Your task to perform on an android device: allow notifications from all sites in the chrome app Image 0: 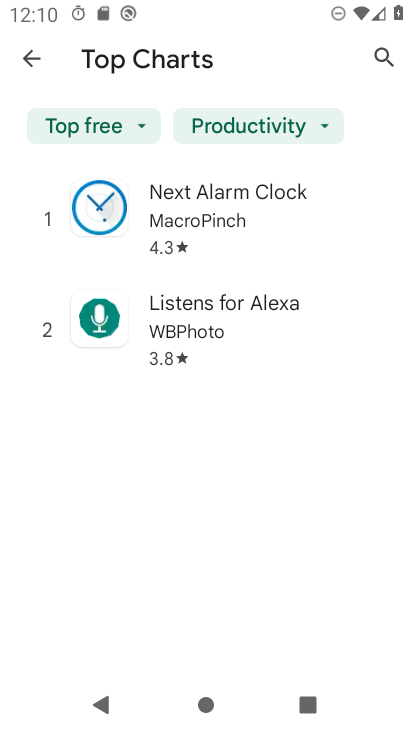
Step 0: press home button
Your task to perform on an android device: allow notifications from all sites in the chrome app Image 1: 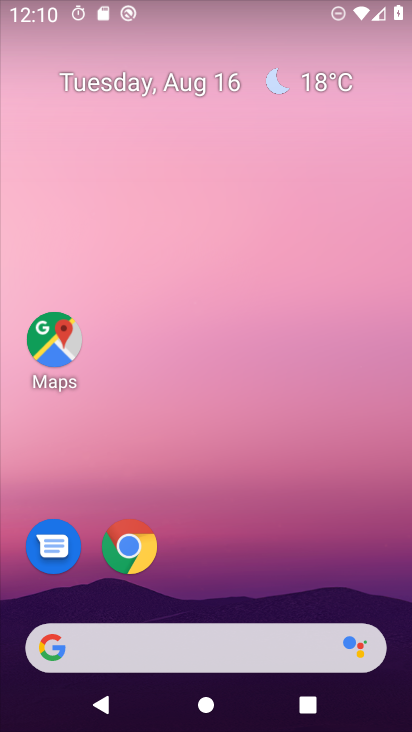
Step 1: drag from (248, 613) to (250, 90)
Your task to perform on an android device: allow notifications from all sites in the chrome app Image 2: 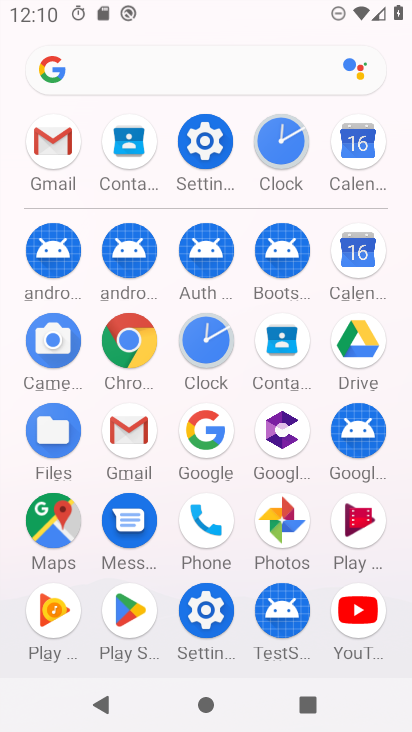
Step 2: click (131, 338)
Your task to perform on an android device: allow notifications from all sites in the chrome app Image 3: 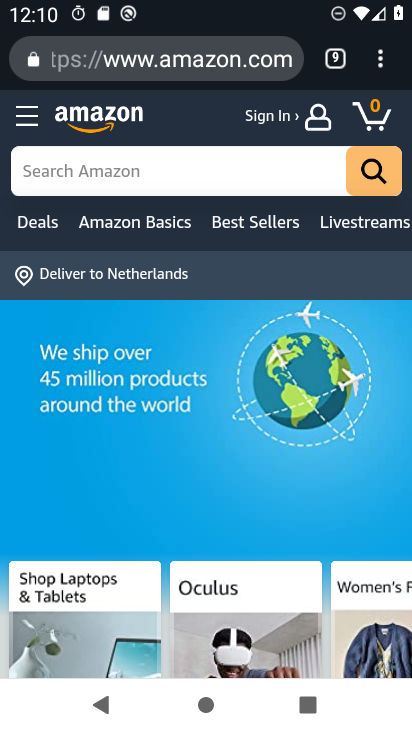
Step 3: drag from (381, 62) to (302, 570)
Your task to perform on an android device: allow notifications from all sites in the chrome app Image 4: 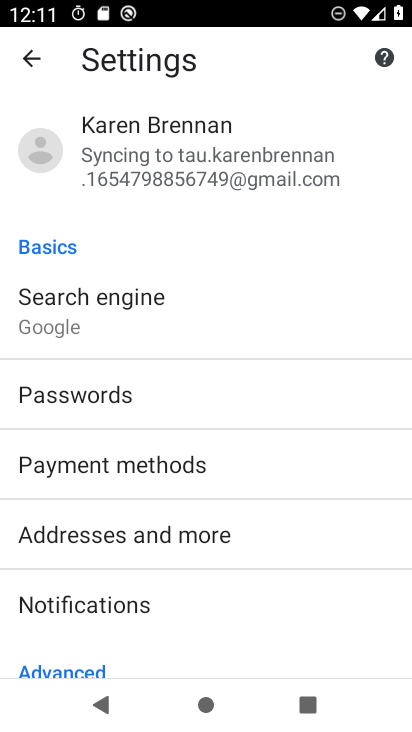
Step 4: drag from (168, 631) to (148, 153)
Your task to perform on an android device: allow notifications from all sites in the chrome app Image 5: 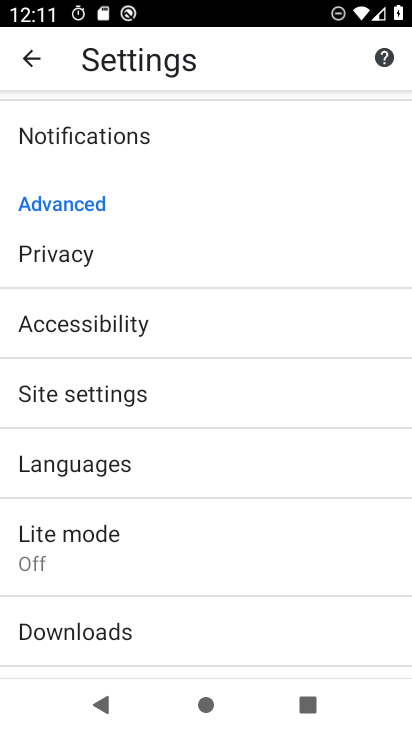
Step 5: drag from (108, 602) to (97, 359)
Your task to perform on an android device: allow notifications from all sites in the chrome app Image 6: 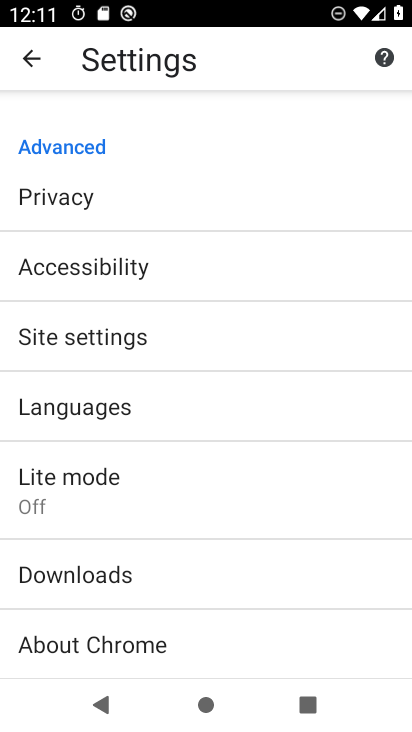
Step 6: click (152, 338)
Your task to perform on an android device: allow notifications from all sites in the chrome app Image 7: 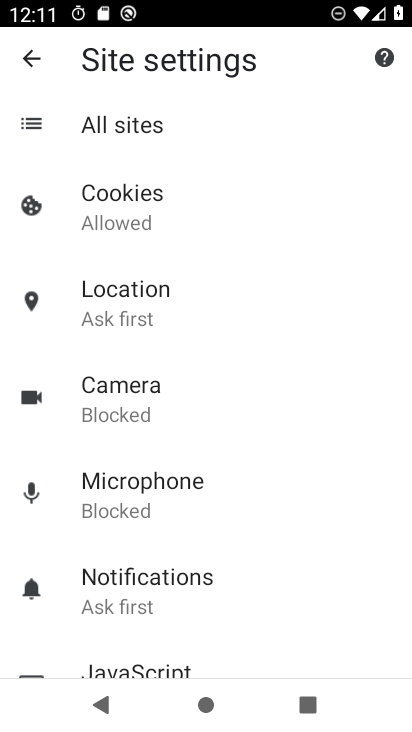
Step 7: click (107, 582)
Your task to perform on an android device: allow notifications from all sites in the chrome app Image 8: 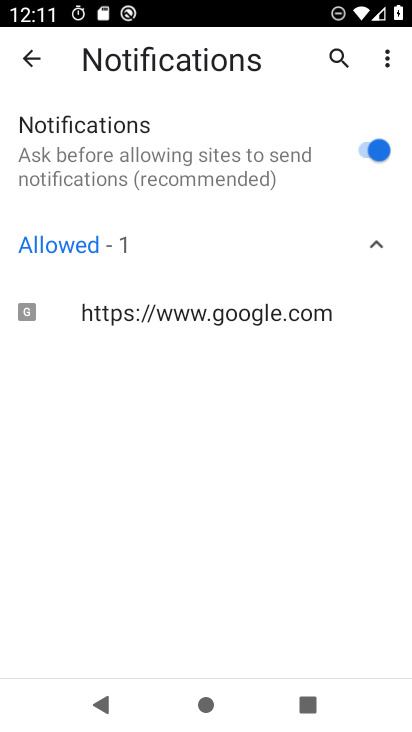
Step 8: task complete